Your task to perform on an android device: clear history in the chrome app Image 0: 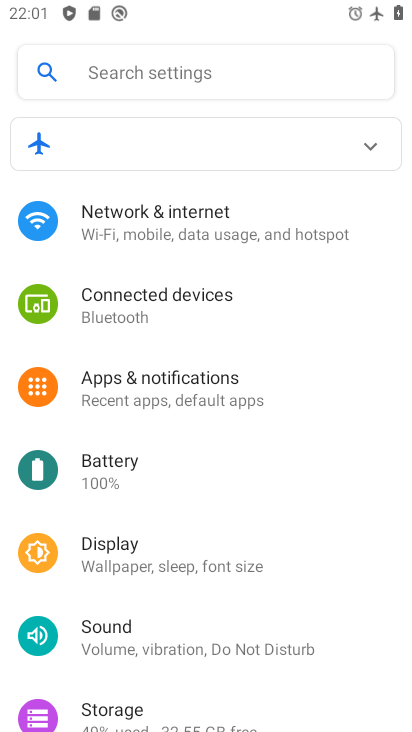
Step 0: press home button
Your task to perform on an android device: clear history in the chrome app Image 1: 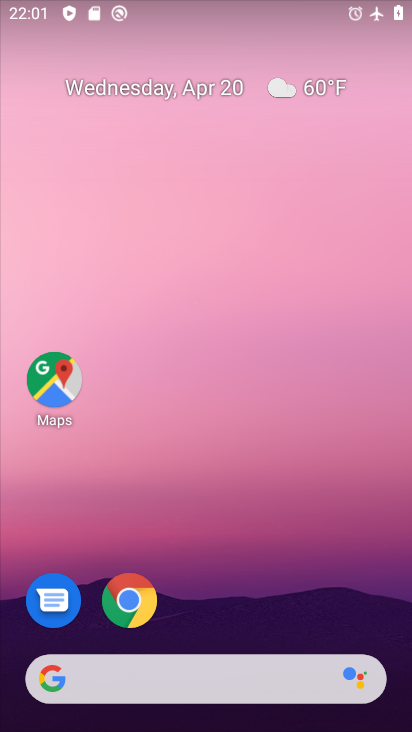
Step 1: click (143, 611)
Your task to perform on an android device: clear history in the chrome app Image 2: 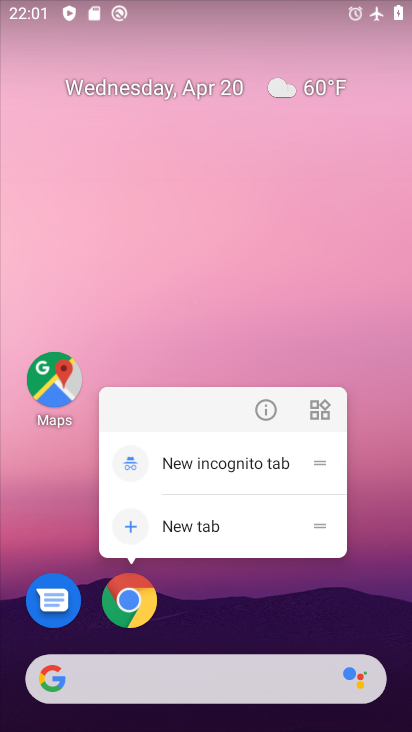
Step 2: click (132, 584)
Your task to perform on an android device: clear history in the chrome app Image 3: 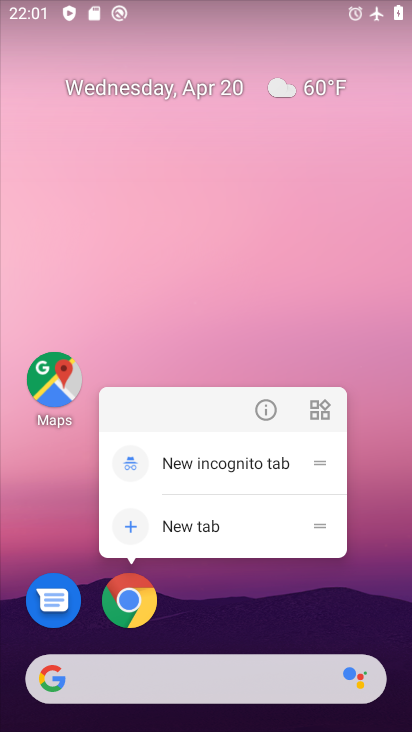
Step 3: click (132, 599)
Your task to perform on an android device: clear history in the chrome app Image 4: 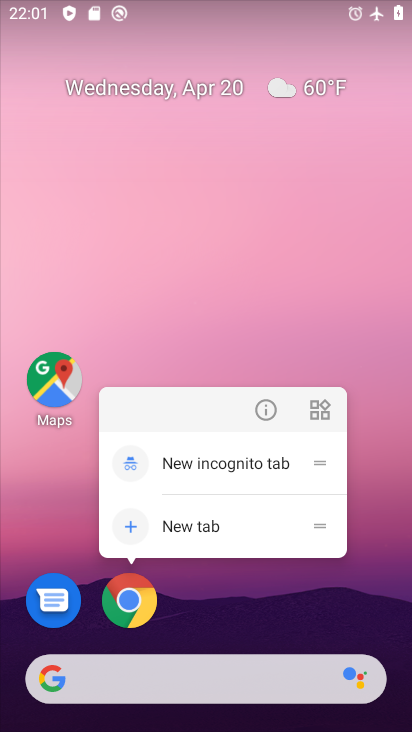
Step 4: click (132, 598)
Your task to perform on an android device: clear history in the chrome app Image 5: 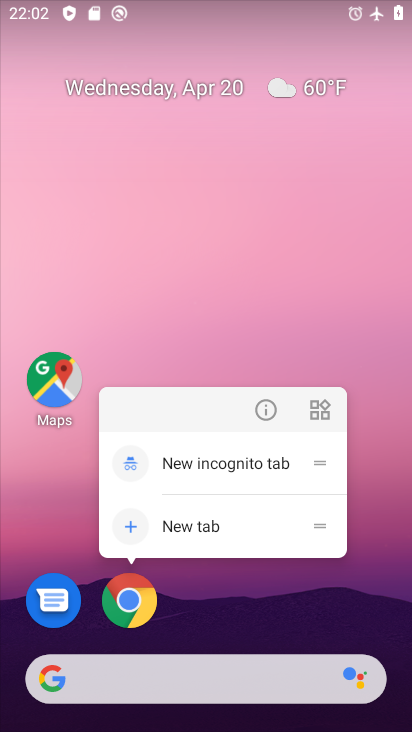
Step 5: click (132, 598)
Your task to perform on an android device: clear history in the chrome app Image 6: 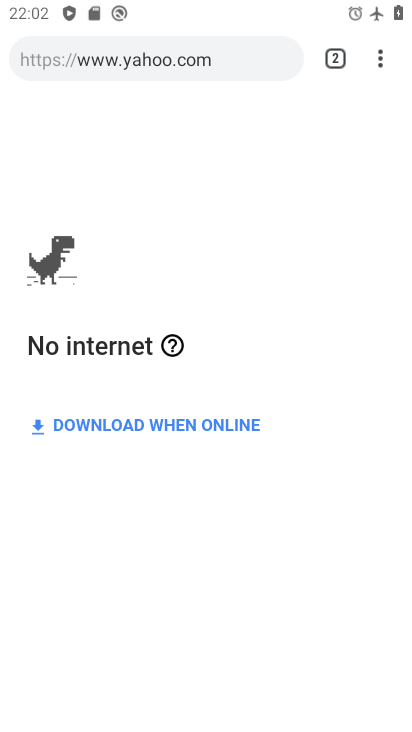
Step 6: click (382, 66)
Your task to perform on an android device: clear history in the chrome app Image 7: 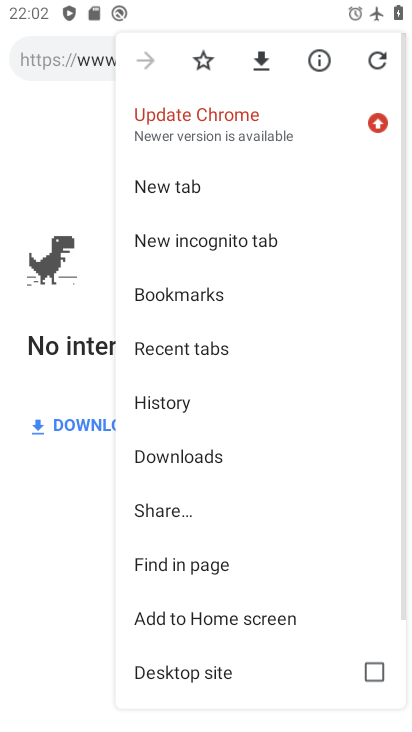
Step 7: click (153, 394)
Your task to perform on an android device: clear history in the chrome app Image 8: 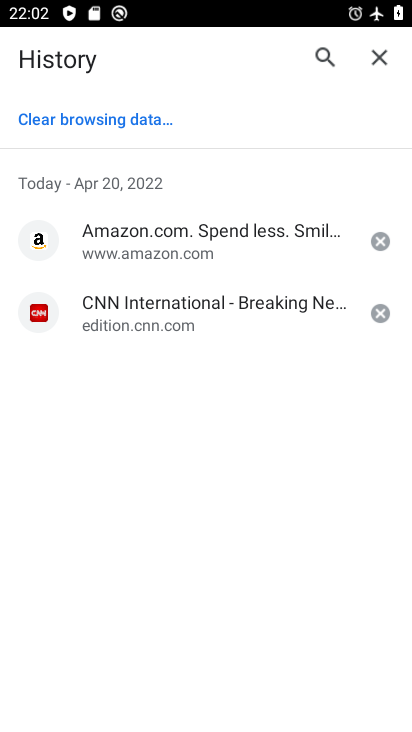
Step 8: click (85, 110)
Your task to perform on an android device: clear history in the chrome app Image 9: 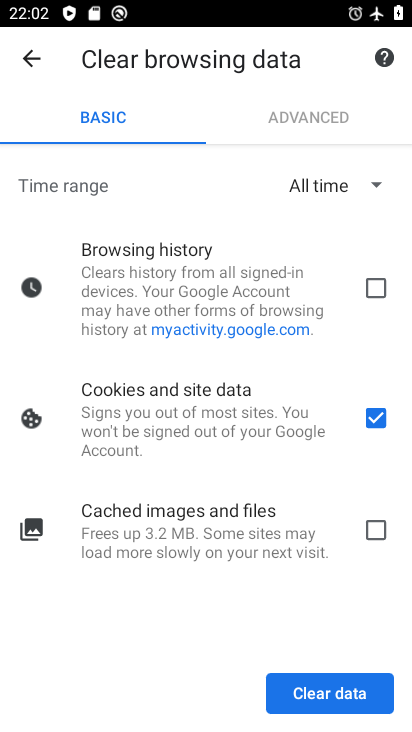
Step 9: click (371, 286)
Your task to perform on an android device: clear history in the chrome app Image 10: 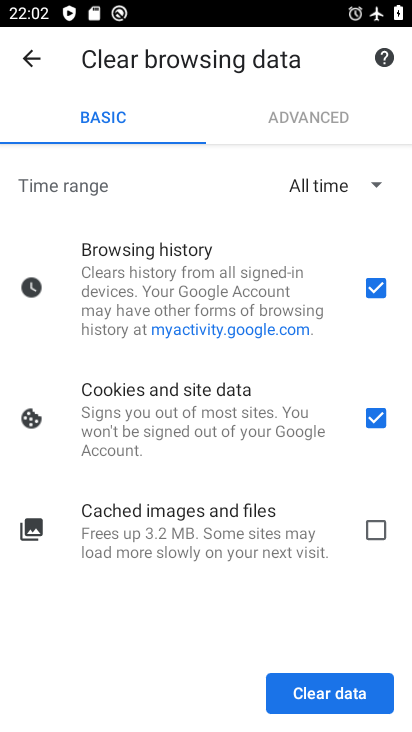
Step 10: click (379, 540)
Your task to perform on an android device: clear history in the chrome app Image 11: 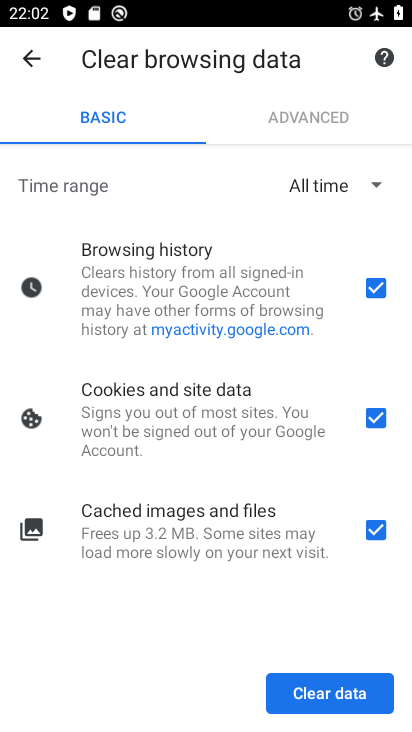
Step 11: click (330, 696)
Your task to perform on an android device: clear history in the chrome app Image 12: 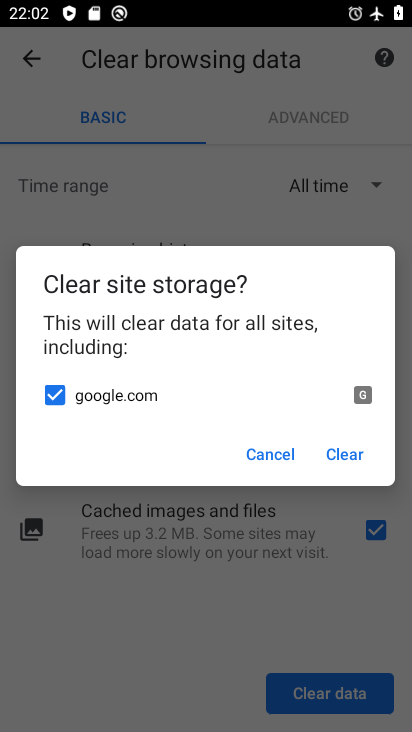
Step 12: click (340, 446)
Your task to perform on an android device: clear history in the chrome app Image 13: 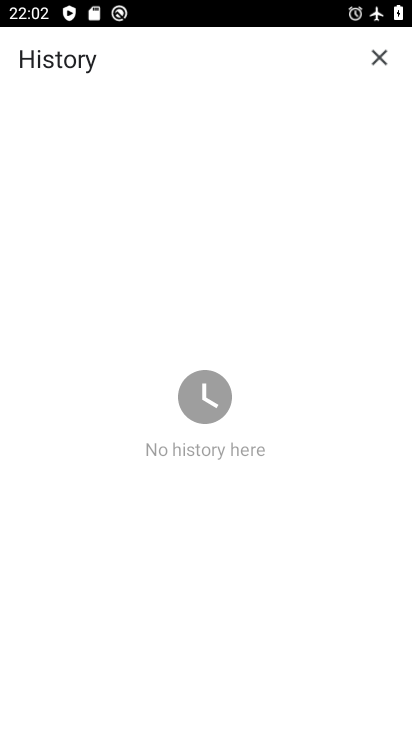
Step 13: task complete